Your task to perform on an android device: turn on javascript in the chrome app Image 0: 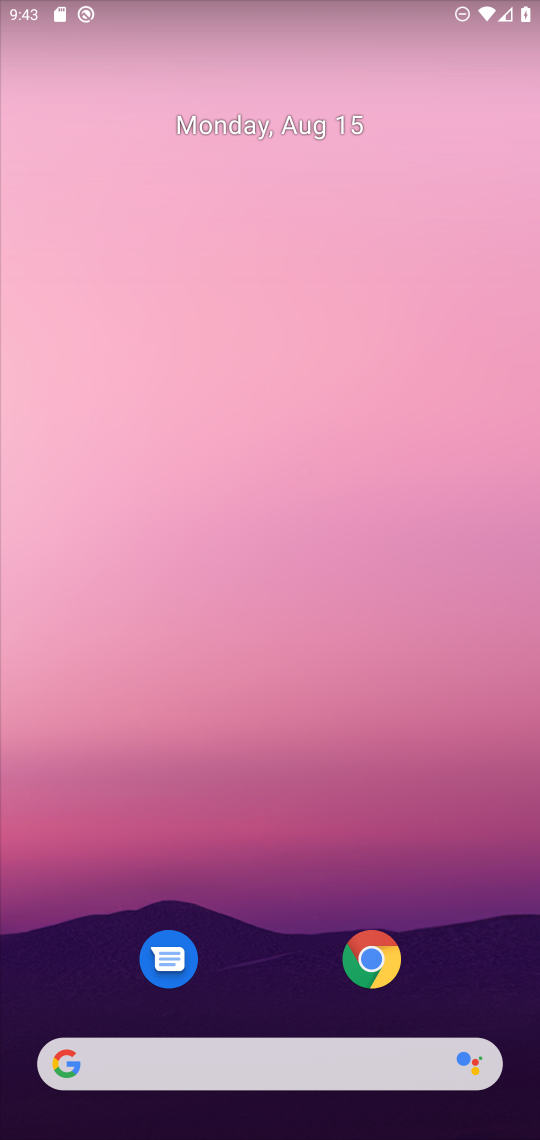
Step 0: click (372, 948)
Your task to perform on an android device: turn on javascript in the chrome app Image 1: 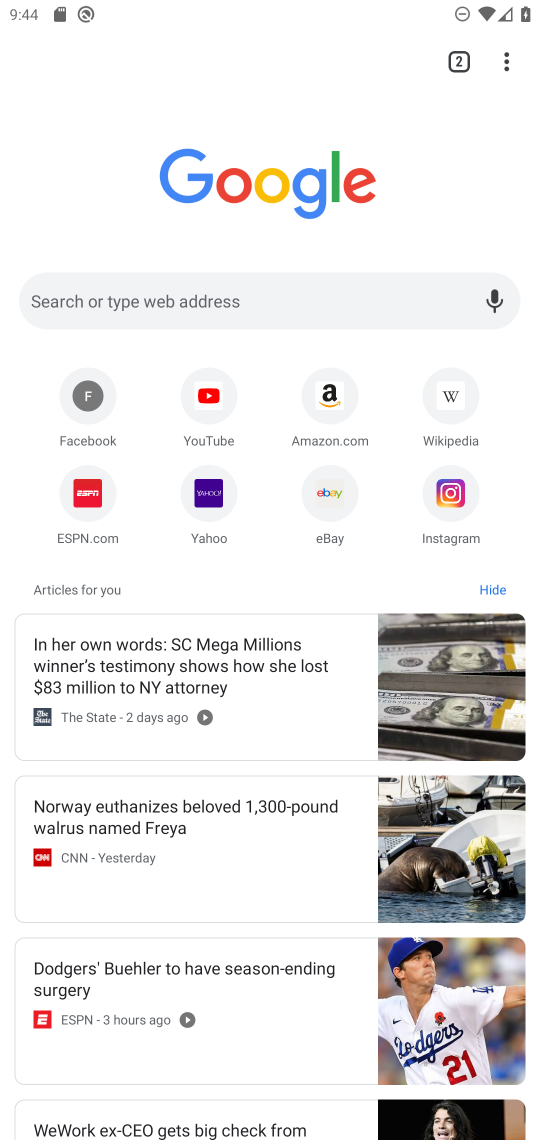
Step 1: click (497, 68)
Your task to perform on an android device: turn on javascript in the chrome app Image 2: 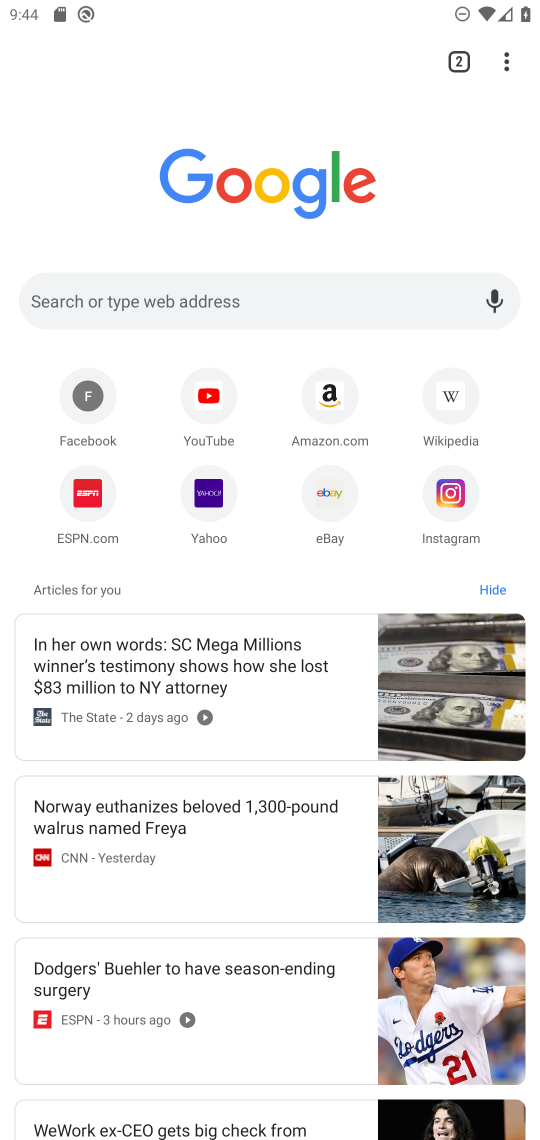
Step 2: drag from (505, 67) to (300, 519)
Your task to perform on an android device: turn on javascript in the chrome app Image 3: 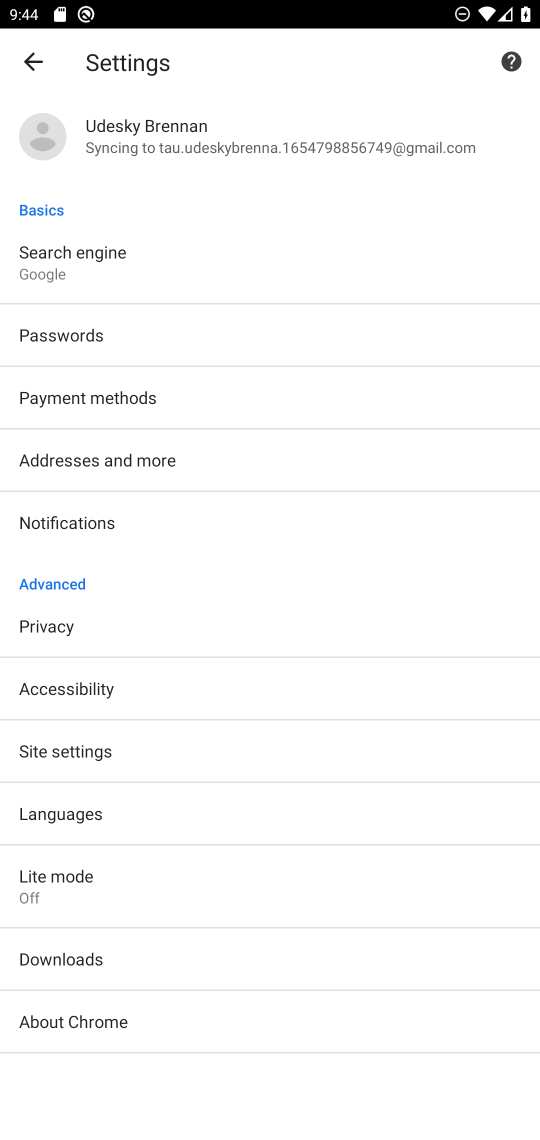
Step 3: click (69, 751)
Your task to perform on an android device: turn on javascript in the chrome app Image 4: 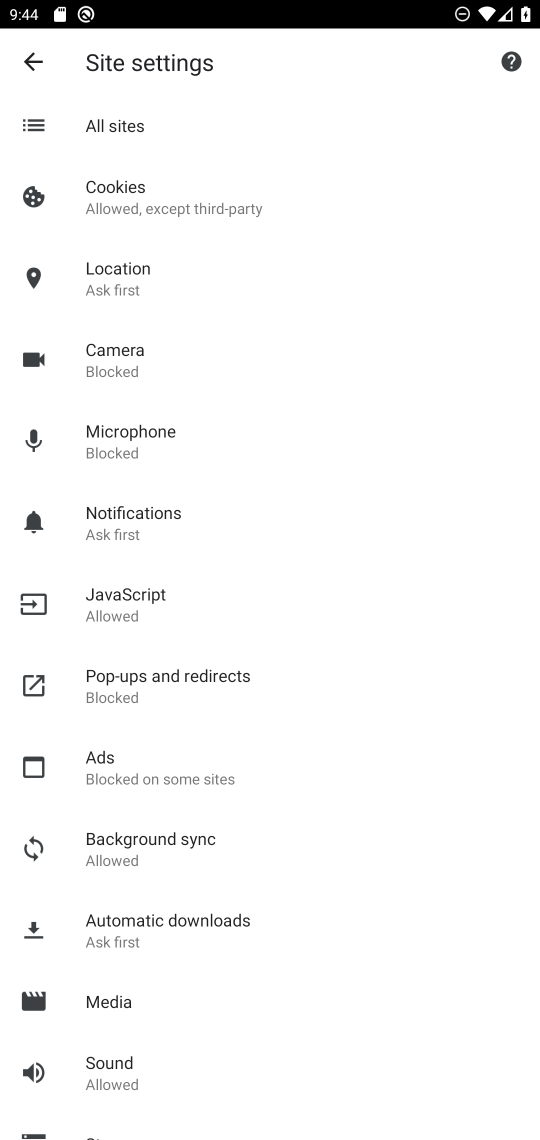
Step 4: click (66, 610)
Your task to perform on an android device: turn on javascript in the chrome app Image 5: 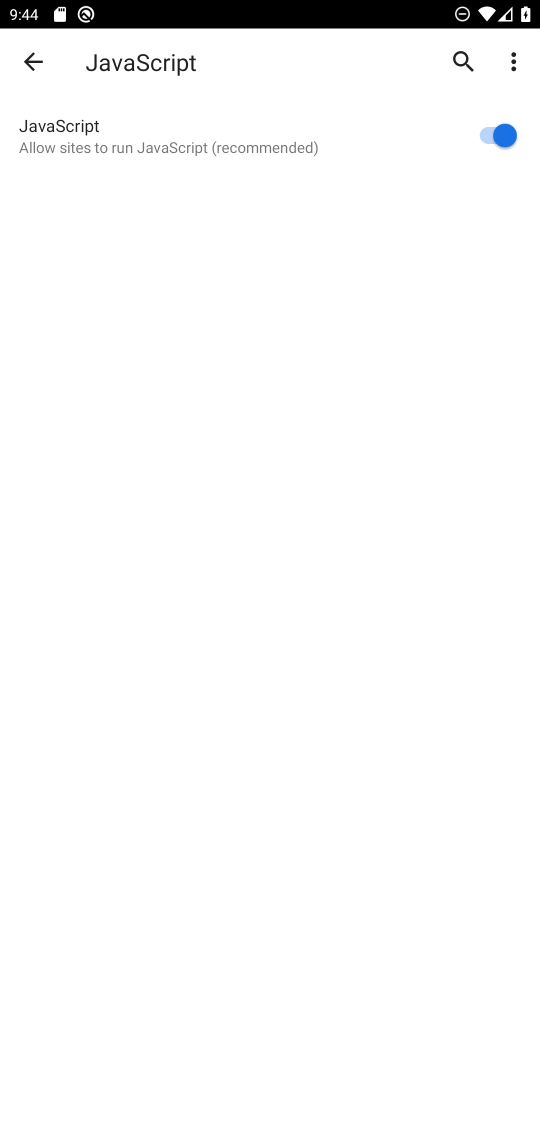
Step 5: task complete